Your task to perform on an android device: change the upload size in google photos Image 0: 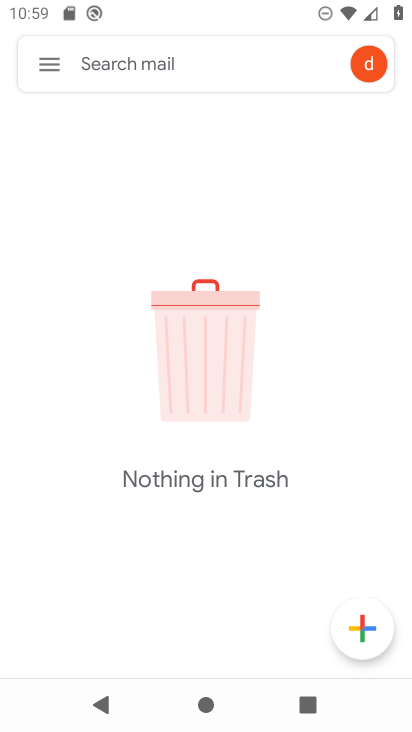
Step 0: press home button
Your task to perform on an android device: change the upload size in google photos Image 1: 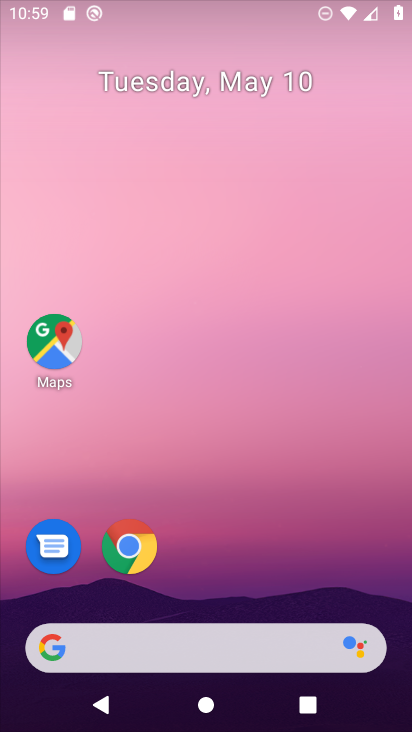
Step 1: drag from (232, 560) to (9, 449)
Your task to perform on an android device: change the upload size in google photos Image 2: 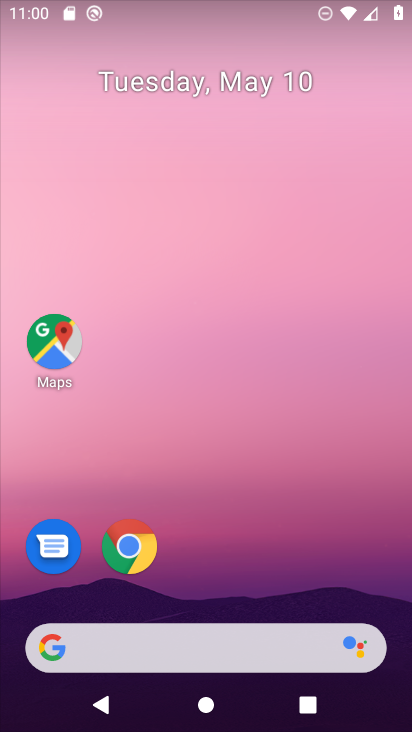
Step 2: drag from (309, 580) to (263, 4)
Your task to perform on an android device: change the upload size in google photos Image 3: 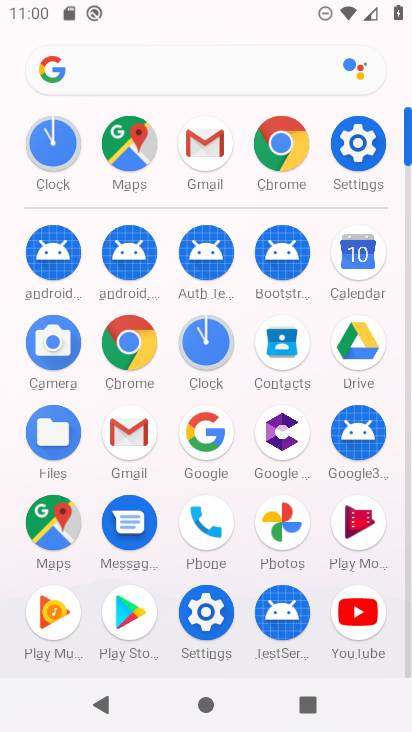
Step 3: click (276, 516)
Your task to perform on an android device: change the upload size in google photos Image 4: 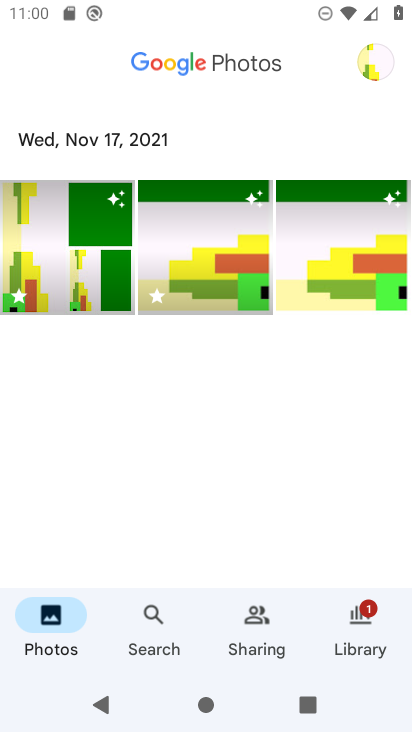
Step 4: click (379, 43)
Your task to perform on an android device: change the upload size in google photos Image 5: 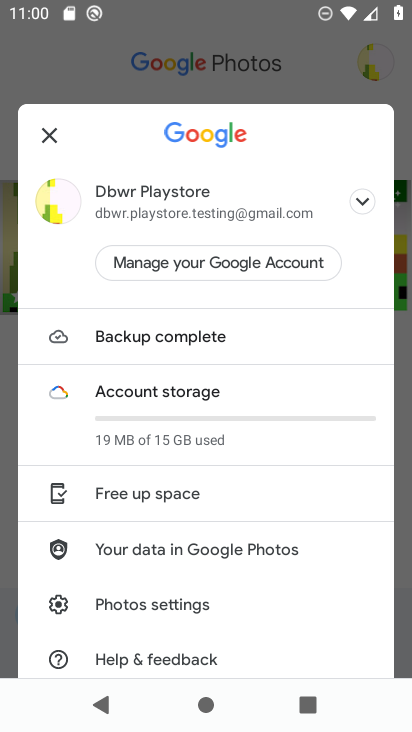
Step 5: click (375, 60)
Your task to perform on an android device: change the upload size in google photos Image 6: 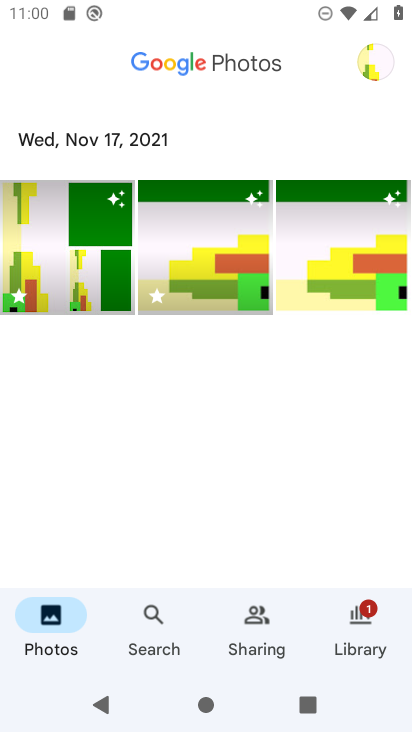
Step 6: click (375, 60)
Your task to perform on an android device: change the upload size in google photos Image 7: 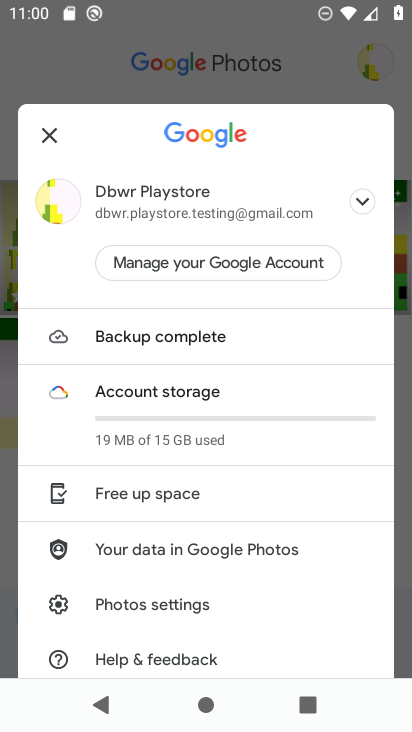
Step 7: click (149, 598)
Your task to perform on an android device: change the upload size in google photos Image 8: 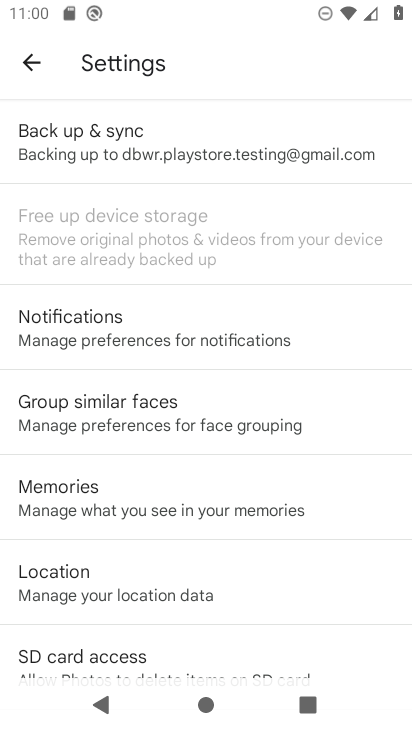
Step 8: click (166, 145)
Your task to perform on an android device: change the upload size in google photos Image 9: 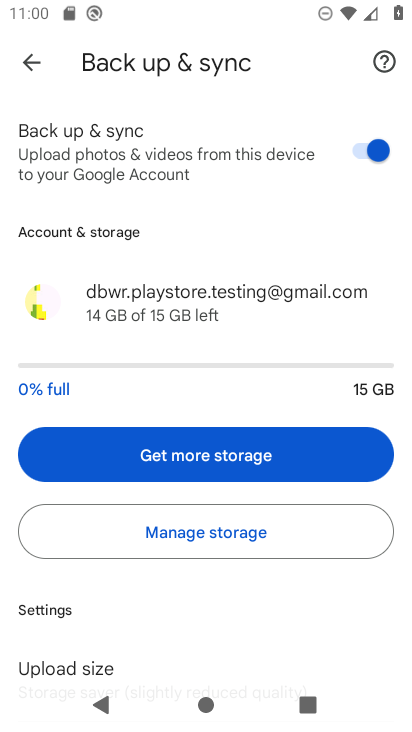
Step 9: drag from (239, 611) to (325, 59)
Your task to perform on an android device: change the upload size in google photos Image 10: 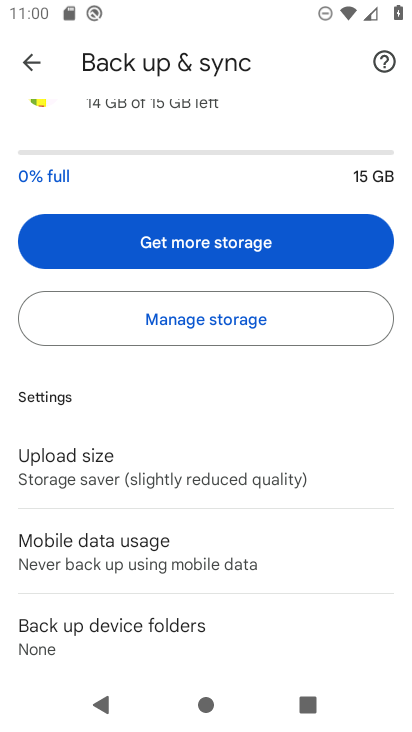
Step 10: click (142, 489)
Your task to perform on an android device: change the upload size in google photos Image 11: 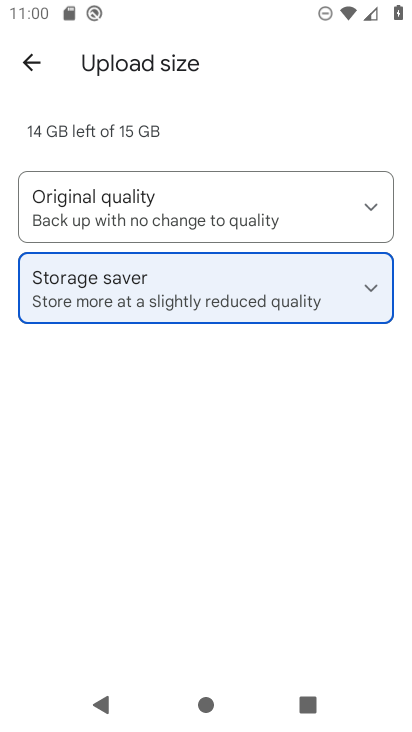
Step 11: click (223, 202)
Your task to perform on an android device: change the upload size in google photos Image 12: 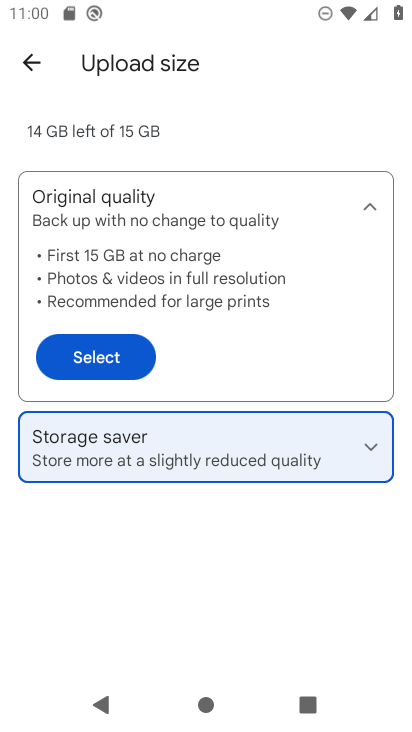
Step 12: click (128, 356)
Your task to perform on an android device: change the upload size in google photos Image 13: 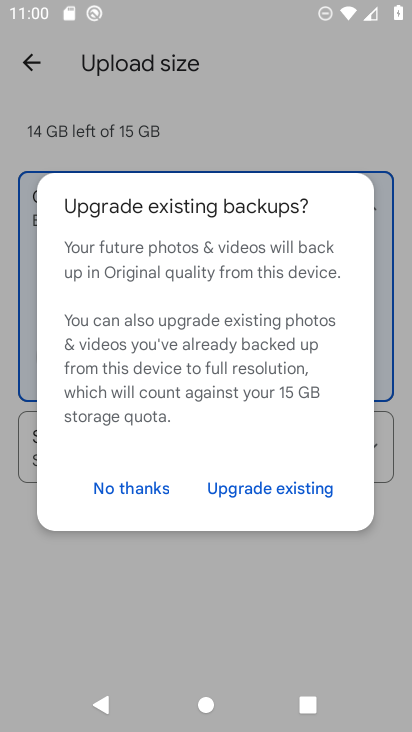
Step 13: click (104, 480)
Your task to perform on an android device: change the upload size in google photos Image 14: 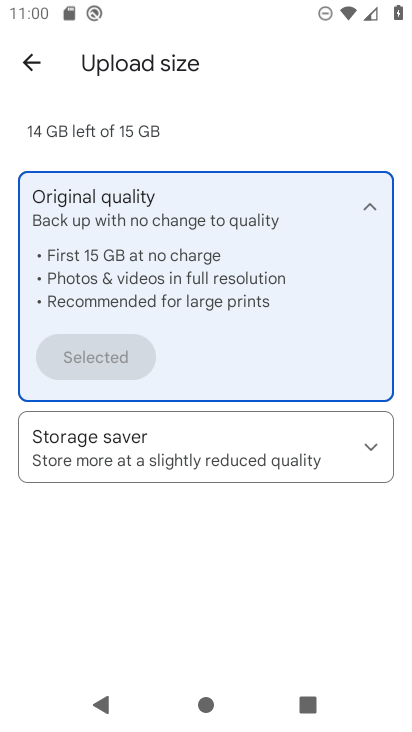
Step 14: task complete